Your task to perform on an android device: Open network settings Image 0: 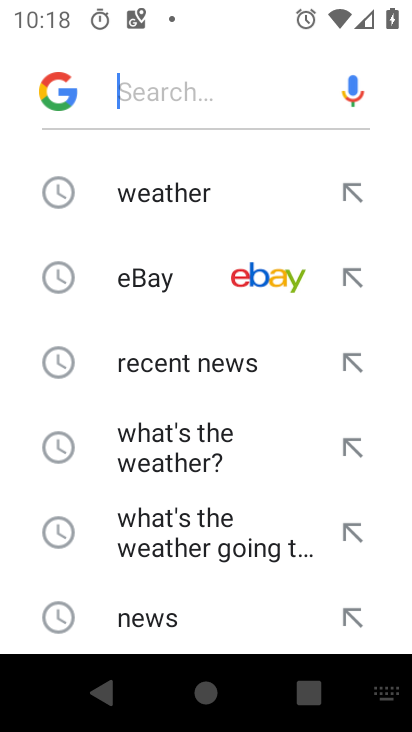
Step 0: press home button
Your task to perform on an android device: Open network settings Image 1: 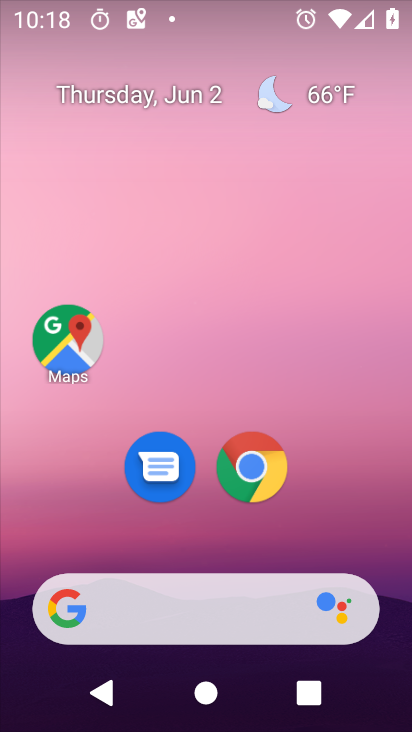
Step 1: drag from (43, 424) to (200, 159)
Your task to perform on an android device: Open network settings Image 2: 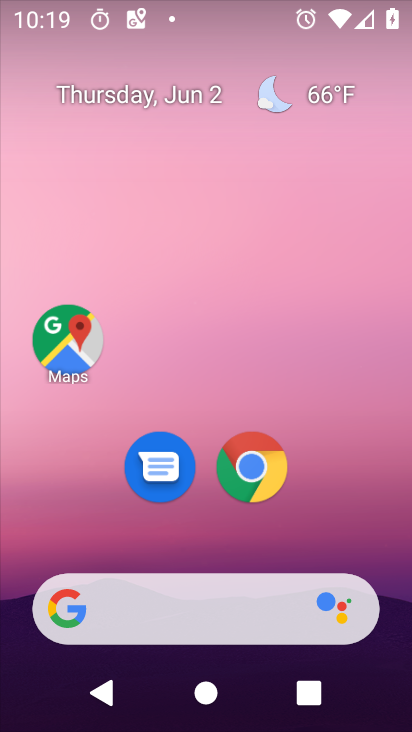
Step 2: drag from (68, 511) to (226, 134)
Your task to perform on an android device: Open network settings Image 3: 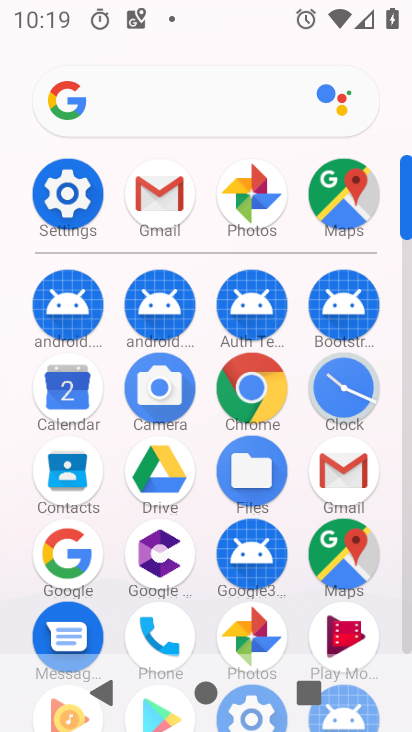
Step 3: click (78, 215)
Your task to perform on an android device: Open network settings Image 4: 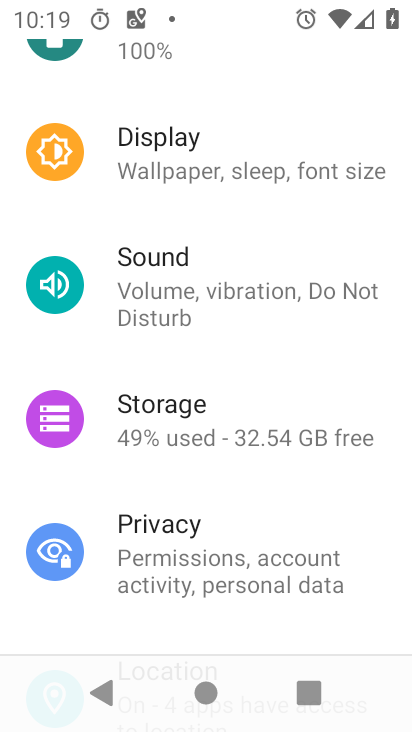
Step 4: drag from (113, 128) to (58, 544)
Your task to perform on an android device: Open network settings Image 5: 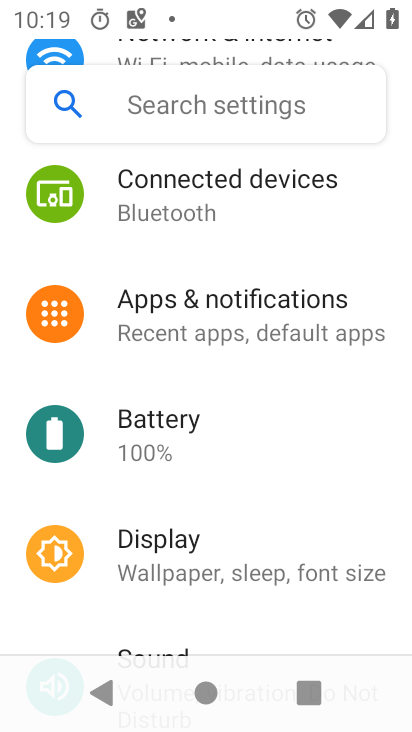
Step 5: drag from (178, 238) to (191, 613)
Your task to perform on an android device: Open network settings Image 6: 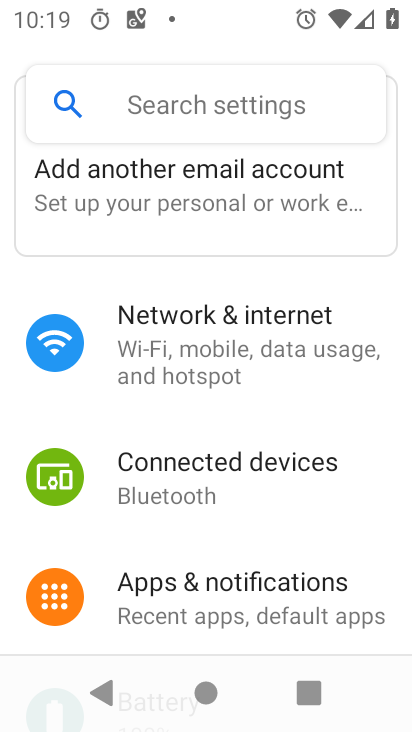
Step 6: click (174, 345)
Your task to perform on an android device: Open network settings Image 7: 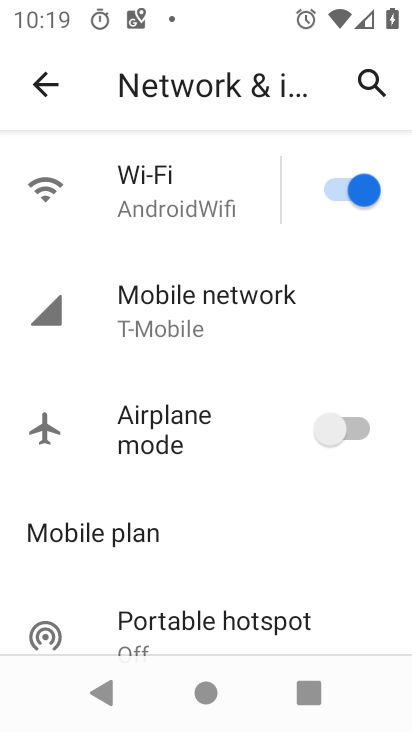
Step 7: click (174, 337)
Your task to perform on an android device: Open network settings Image 8: 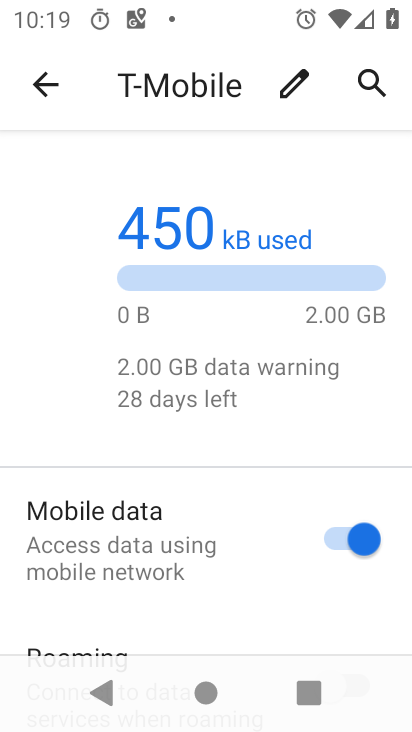
Step 8: task complete